Your task to perform on an android device: Show me popular videos on Youtube Image 0: 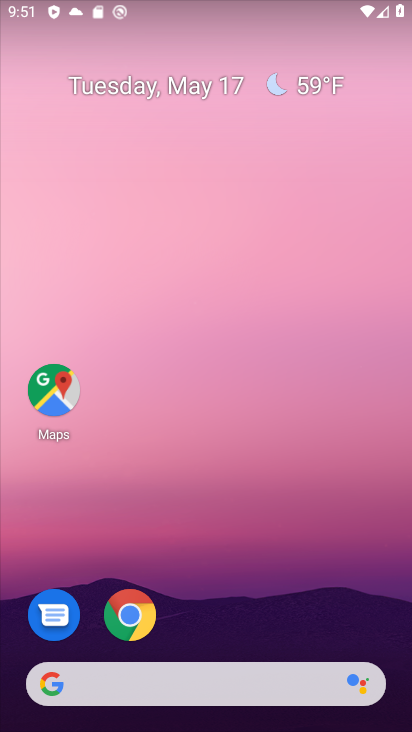
Step 0: drag from (226, 623) to (247, 327)
Your task to perform on an android device: Show me popular videos on Youtube Image 1: 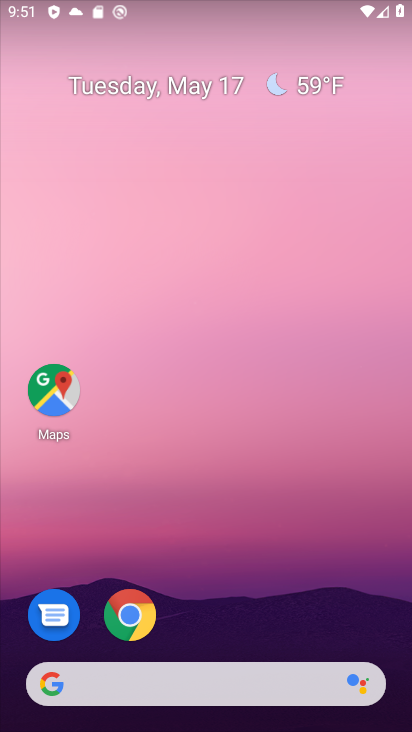
Step 1: drag from (216, 608) to (230, 268)
Your task to perform on an android device: Show me popular videos on Youtube Image 2: 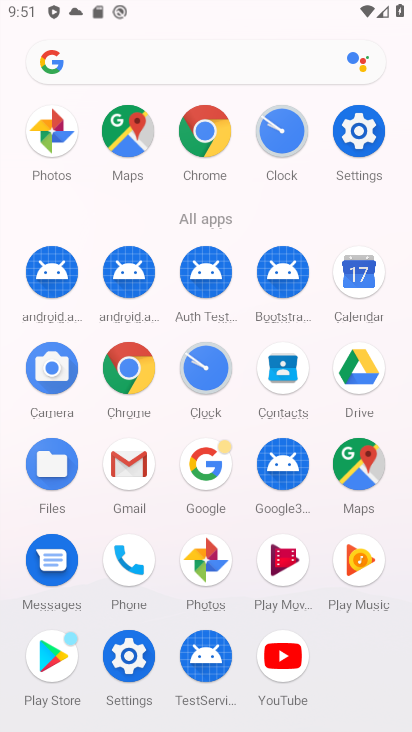
Step 2: click (284, 664)
Your task to perform on an android device: Show me popular videos on Youtube Image 3: 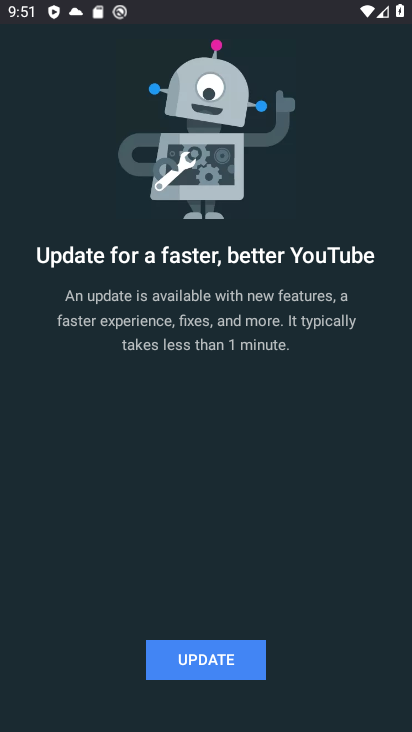
Step 3: drag from (282, 662) to (224, 662)
Your task to perform on an android device: Show me popular videos on Youtube Image 4: 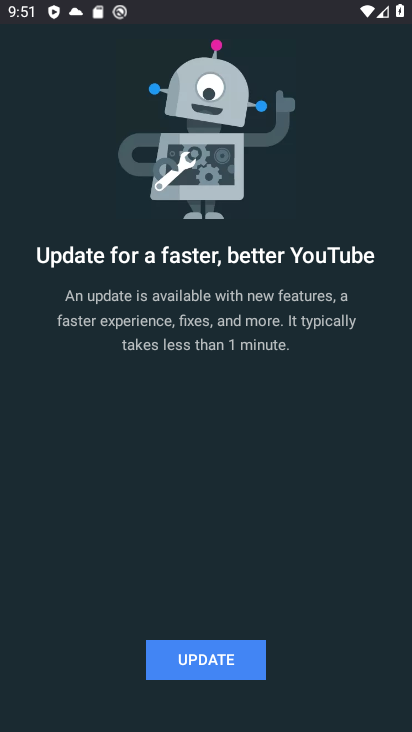
Step 4: click (211, 660)
Your task to perform on an android device: Show me popular videos on Youtube Image 5: 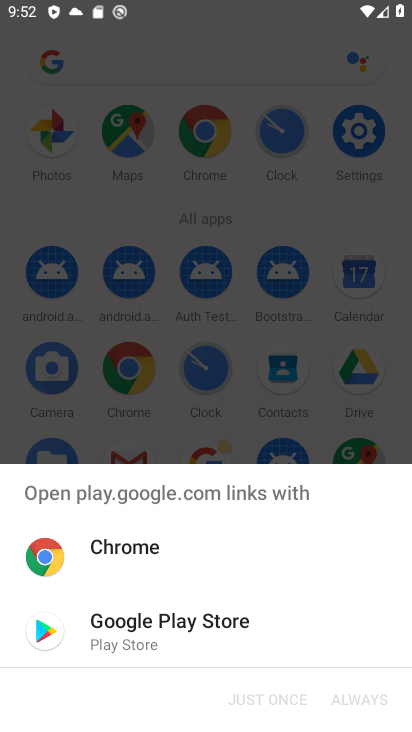
Step 5: click (172, 636)
Your task to perform on an android device: Show me popular videos on Youtube Image 6: 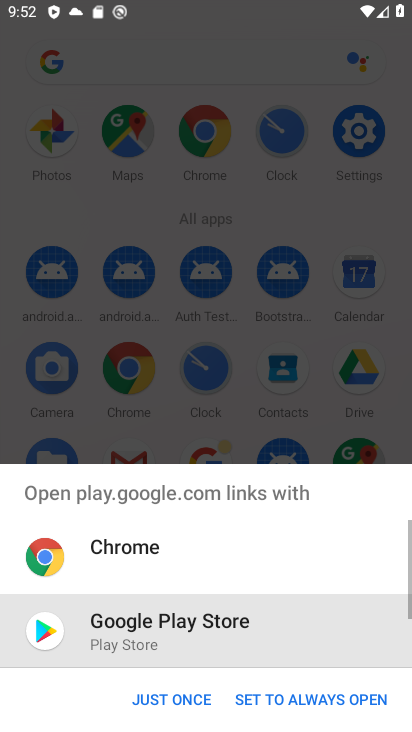
Step 6: click (287, 692)
Your task to perform on an android device: Show me popular videos on Youtube Image 7: 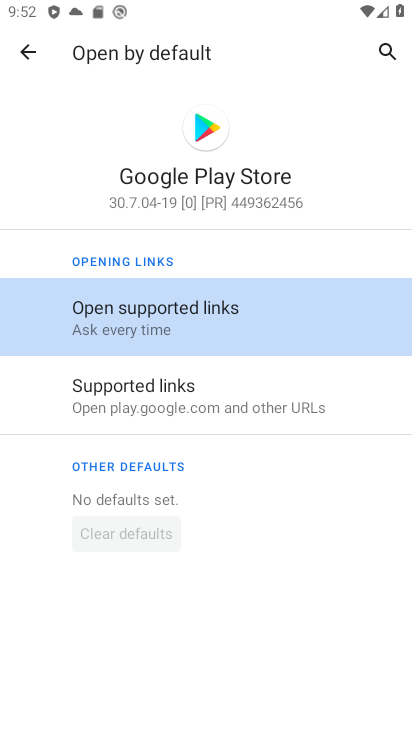
Step 7: click (165, 328)
Your task to perform on an android device: Show me popular videos on Youtube Image 8: 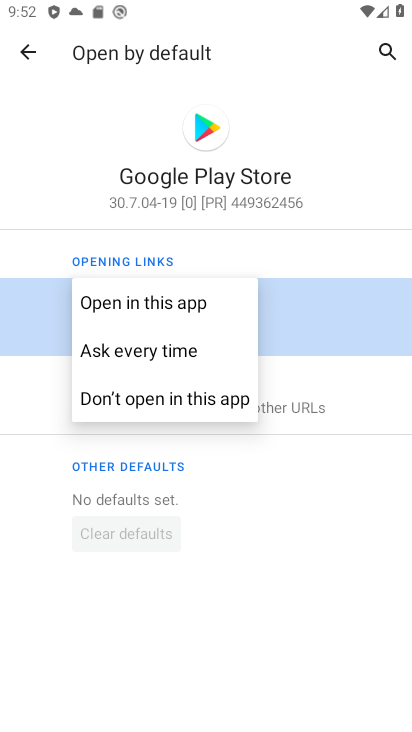
Step 8: click (138, 303)
Your task to perform on an android device: Show me popular videos on Youtube Image 9: 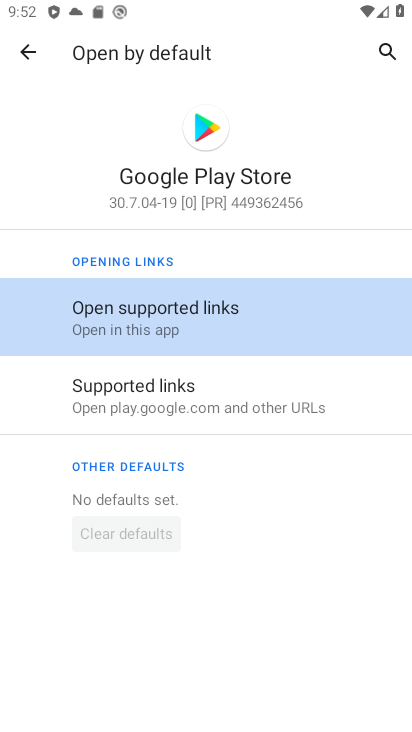
Step 9: click (27, 55)
Your task to perform on an android device: Show me popular videos on Youtube Image 10: 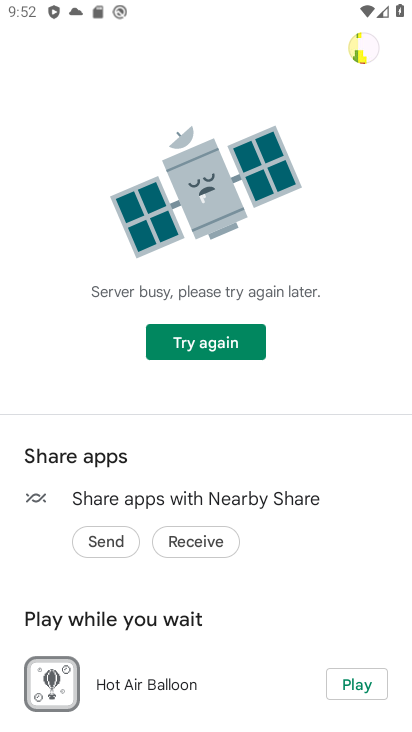
Step 10: task complete